Your task to perform on an android device: open a bookmark in the chrome app Image 0: 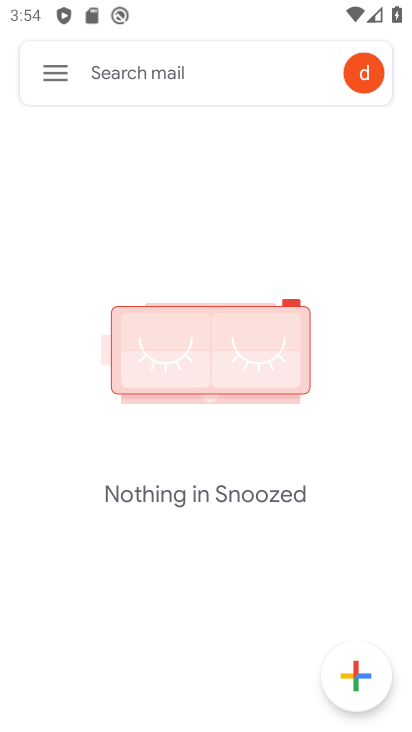
Step 0: press home button
Your task to perform on an android device: open a bookmark in the chrome app Image 1: 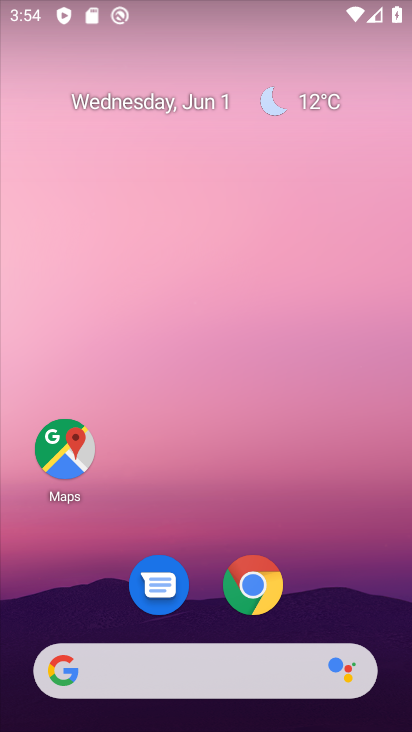
Step 1: click (264, 576)
Your task to perform on an android device: open a bookmark in the chrome app Image 2: 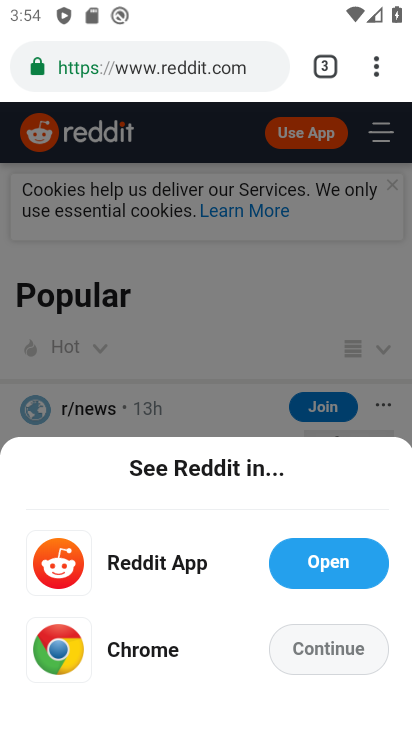
Step 2: click (376, 68)
Your task to perform on an android device: open a bookmark in the chrome app Image 3: 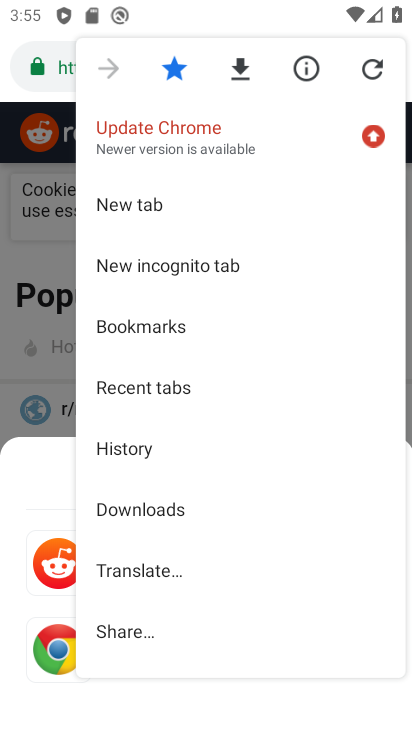
Step 3: click (169, 319)
Your task to perform on an android device: open a bookmark in the chrome app Image 4: 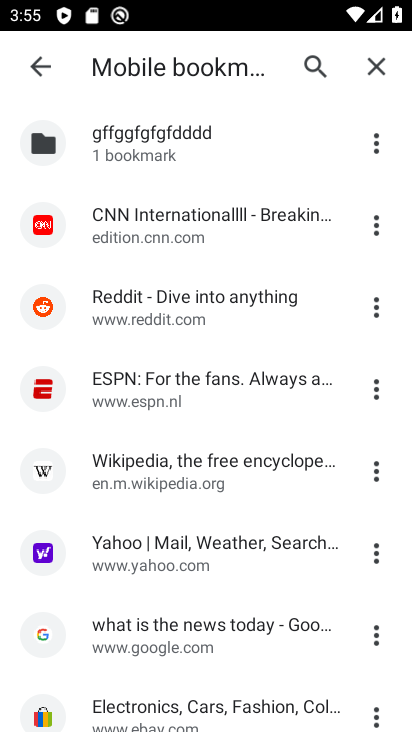
Step 4: click (215, 465)
Your task to perform on an android device: open a bookmark in the chrome app Image 5: 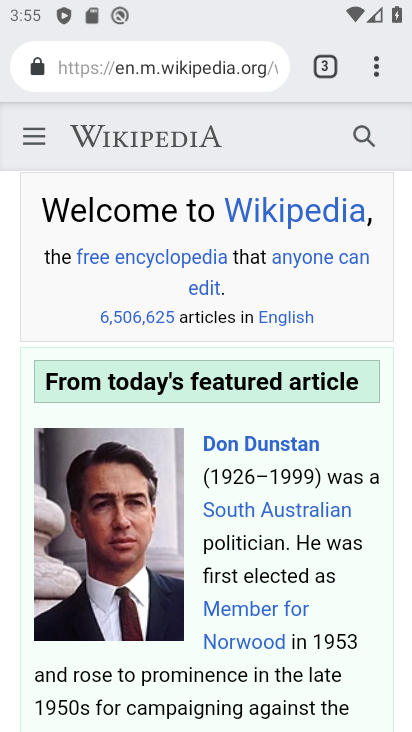
Step 5: task complete